Your task to perform on an android device: turn off improve location accuracy Image 0: 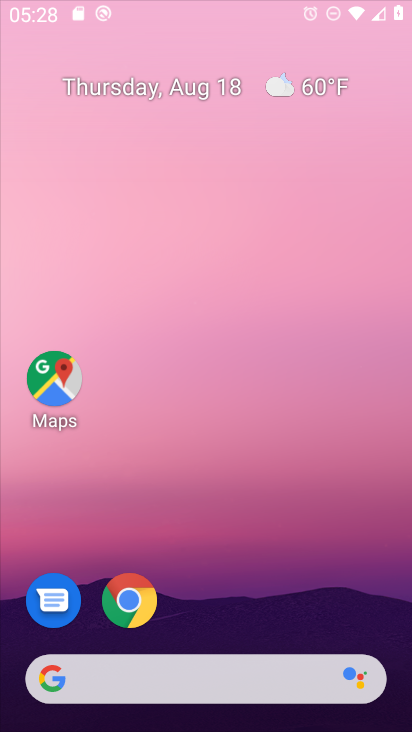
Step 0: press home button
Your task to perform on an android device: turn off improve location accuracy Image 1: 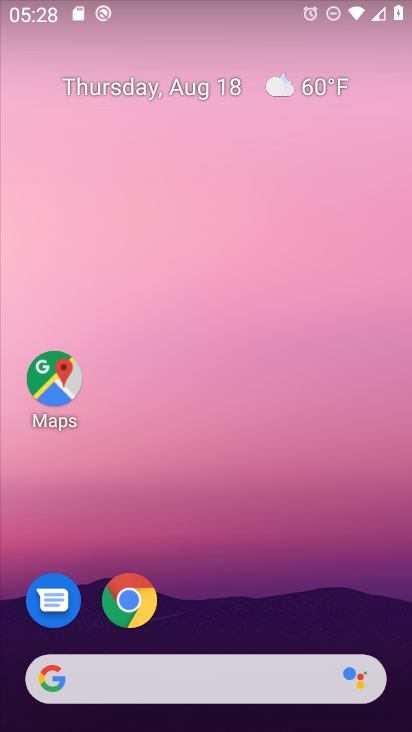
Step 1: drag from (229, 631) to (251, 72)
Your task to perform on an android device: turn off improve location accuracy Image 2: 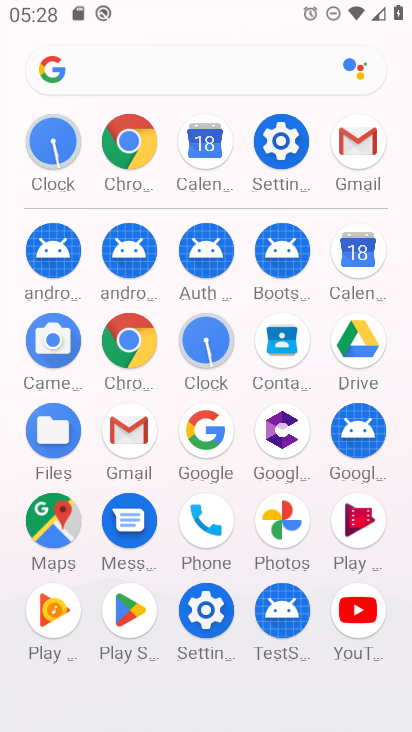
Step 2: click (275, 150)
Your task to perform on an android device: turn off improve location accuracy Image 3: 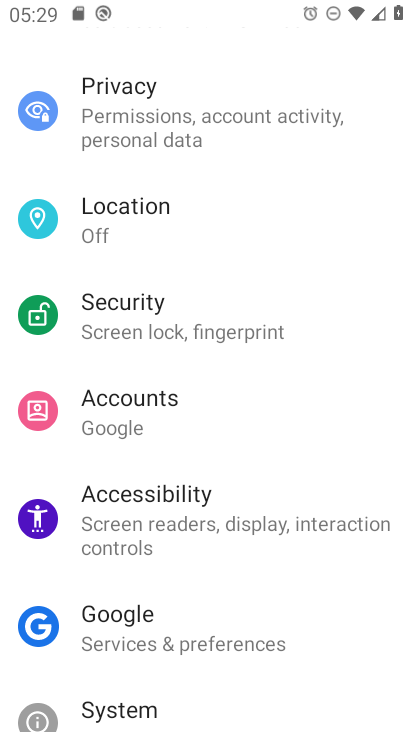
Step 3: click (116, 233)
Your task to perform on an android device: turn off improve location accuracy Image 4: 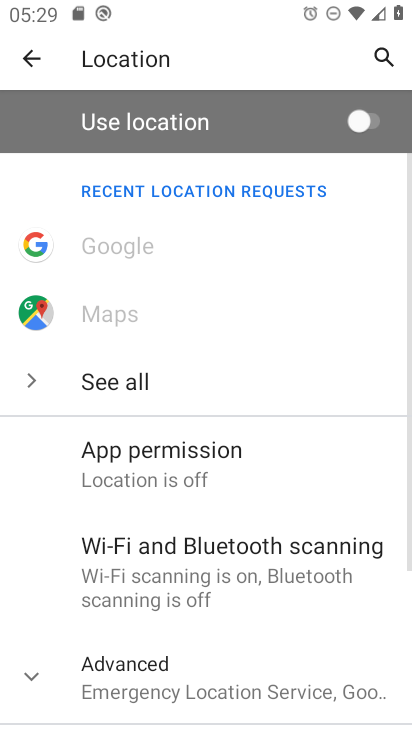
Step 4: click (145, 689)
Your task to perform on an android device: turn off improve location accuracy Image 5: 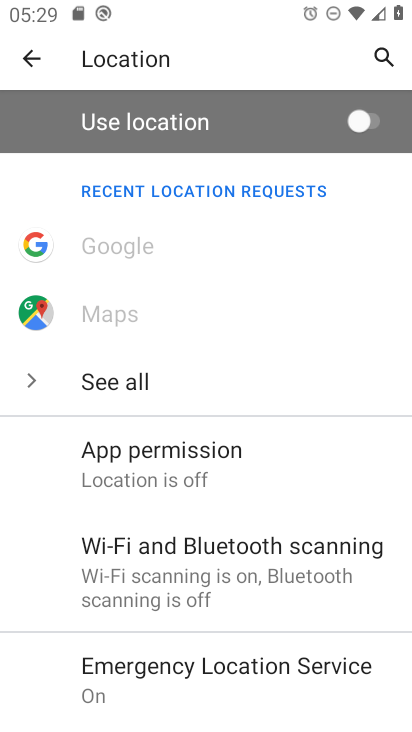
Step 5: drag from (266, 689) to (269, 88)
Your task to perform on an android device: turn off improve location accuracy Image 6: 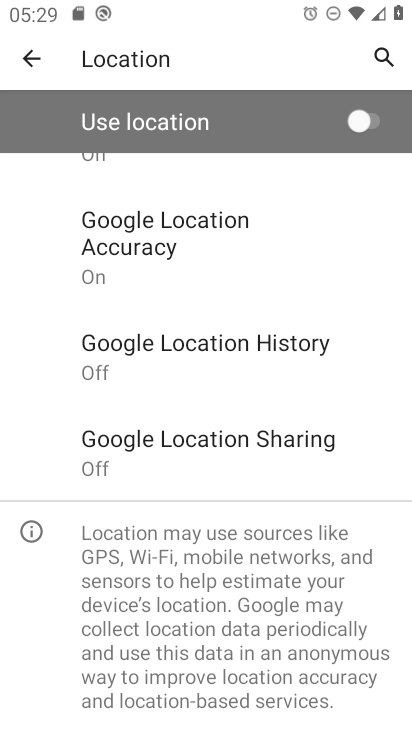
Step 6: click (109, 247)
Your task to perform on an android device: turn off improve location accuracy Image 7: 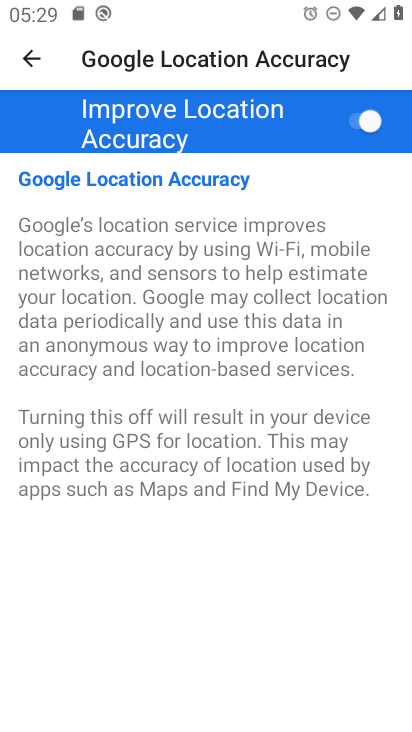
Step 7: click (365, 122)
Your task to perform on an android device: turn off improve location accuracy Image 8: 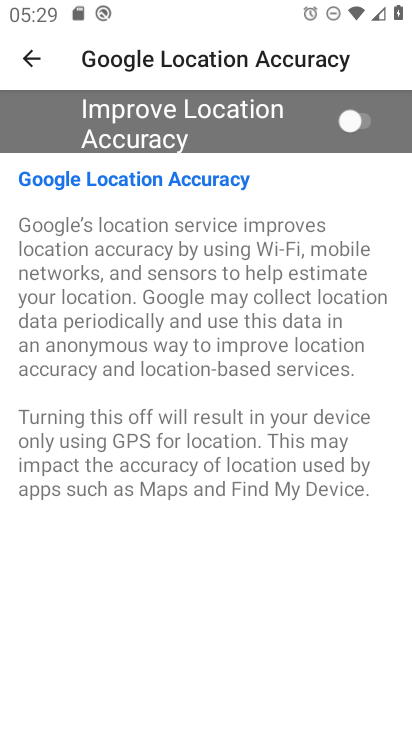
Step 8: task complete